Your task to perform on an android device: Go to settings Image 0: 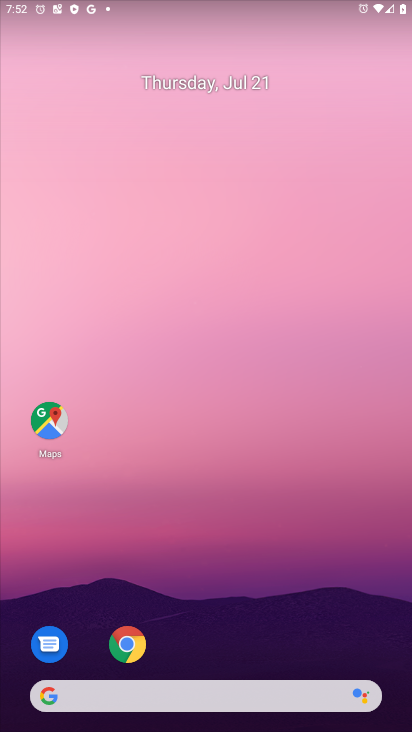
Step 0: drag from (211, 591) to (192, 217)
Your task to perform on an android device: Go to settings Image 1: 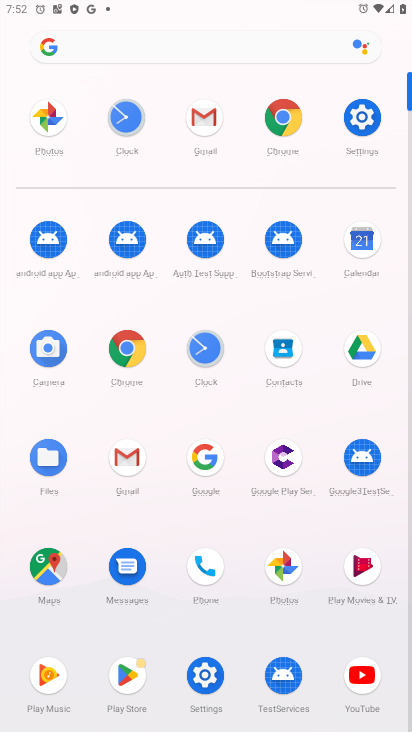
Step 1: click (198, 683)
Your task to perform on an android device: Go to settings Image 2: 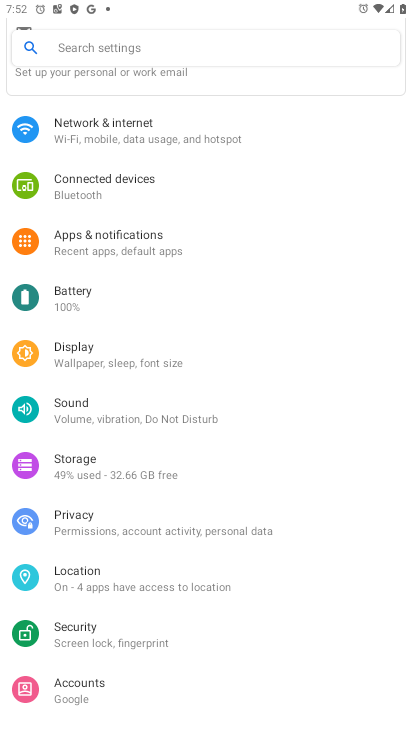
Step 2: task complete